Your task to perform on an android device: turn vacation reply on in the gmail app Image 0: 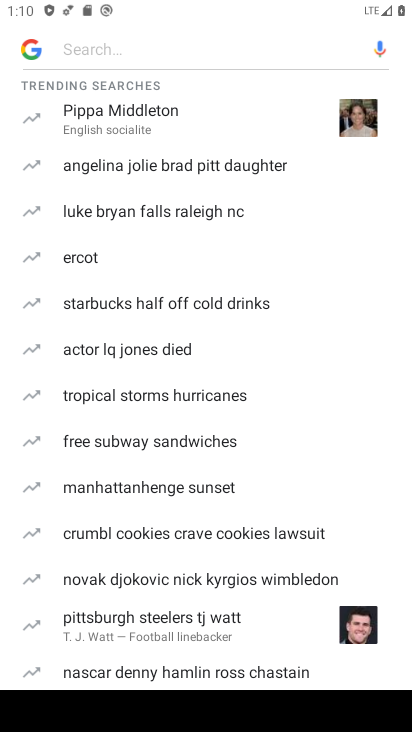
Step 0: press home button
Your task to perform on an android device: turn vacation reply on in the gmail app Image 1: 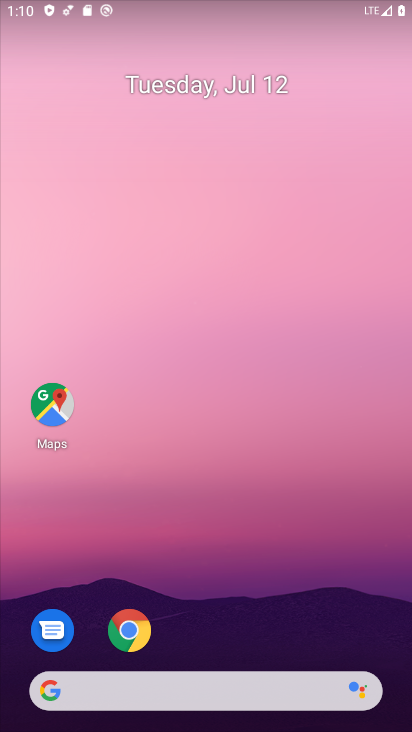
Step 1: drag from (375, 638) to (325, 13)
Your task to perform on an android device: turn vacation reply on in the gmail app Image 2: 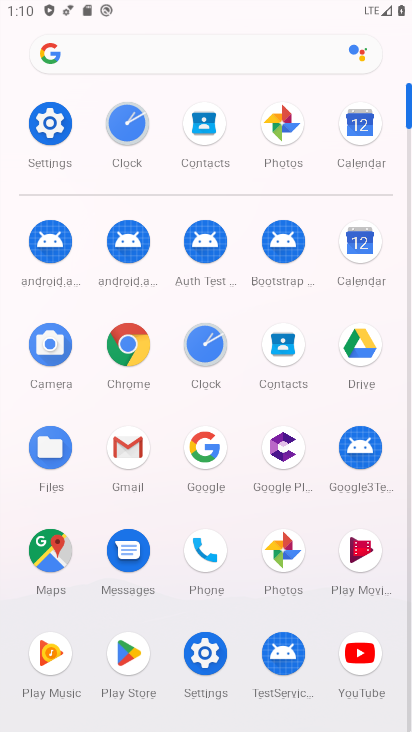
Step 2: click (125, 448)
Your task to perform on an android device: turn vacation reply on in the gmail app Image 3: 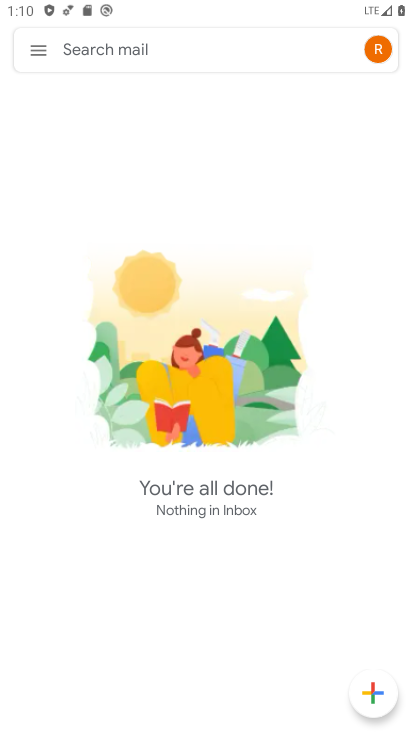
Step 3: click (38, 54)
Your task to perform on an android device: turn vacation reply on in the gmail app Image 4: 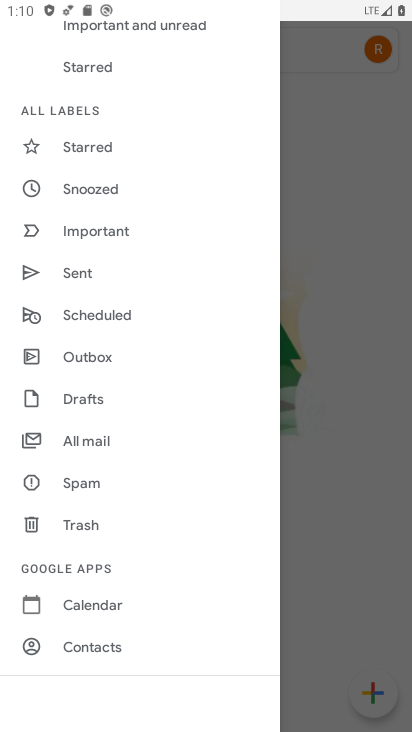
Step 4: drag from (175, 640) to (182, 124)
Your task to perform on an android device: turn vacation reply on in the gmail app Image 5: 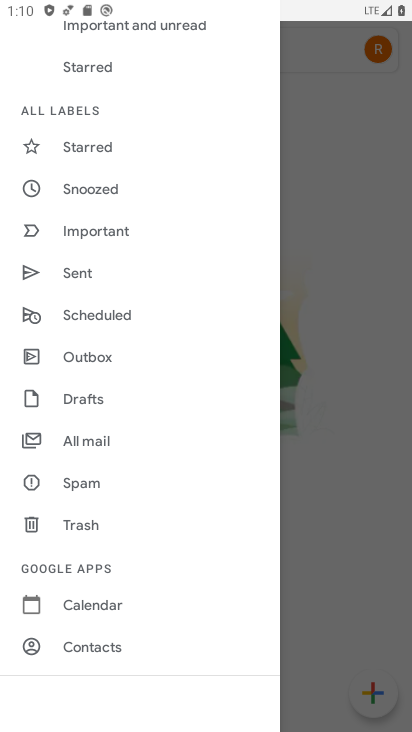
Step 5: drag from (173, 658) to (175, 98)
Your task to perform on an android device: turn vacation reply on in the gmail app Image 6: 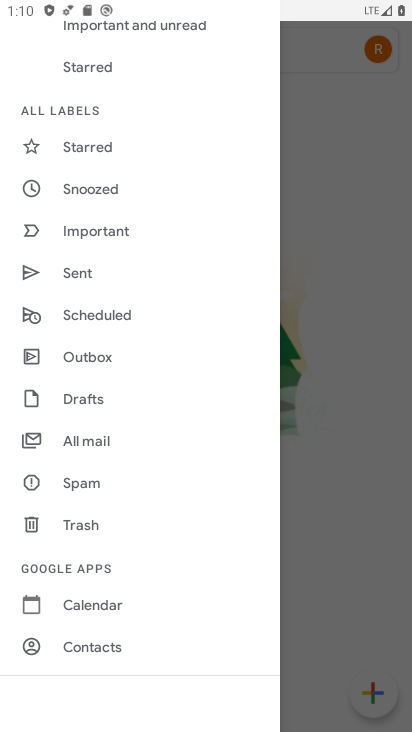
Step 6: drag from (145, 619) to (214, 163)
Your task to perform on an android device: turn vacation reply on in the gmail app Image 7: 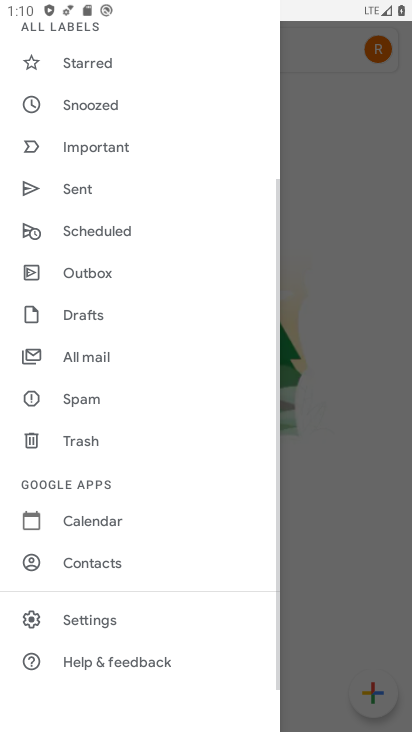
Step 7: click (83, 627)
Your task to perform on an android device: turn vacation reply on in the gmail app Image 8: 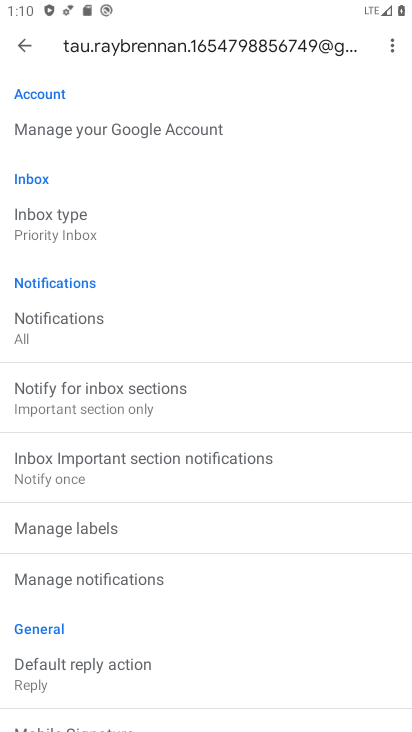
Step 8: drag from (200, 660) to (225, 87)
Your task to perform on an android device: turn vacation reply on in the gmail app Image 9: 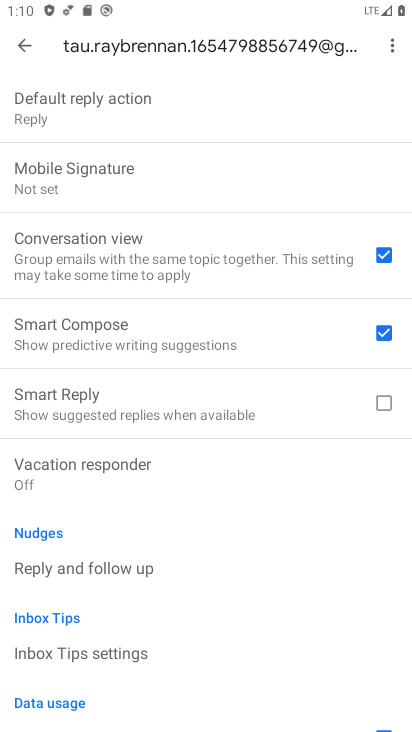
Step 9: click (75, 469)
Your task to perform on an android device: turn vacation reply on in the gmail app Image 10: 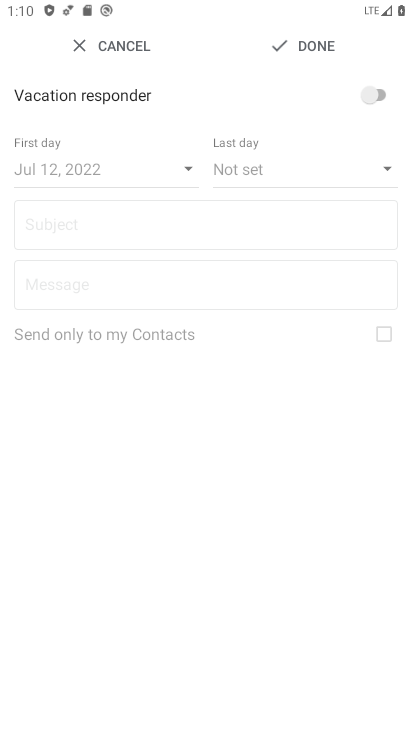
Step 10: click (381, 96)
Your task to perform on an android device: turn vacation reply on in the gmail app Image 11: 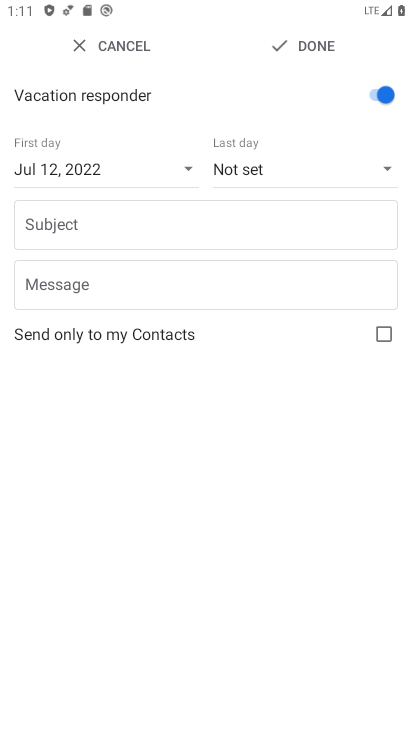
Step 11: click (312, 43)
Your task to perform on an android device: turn vacation reply on in the gmail app Image 12: 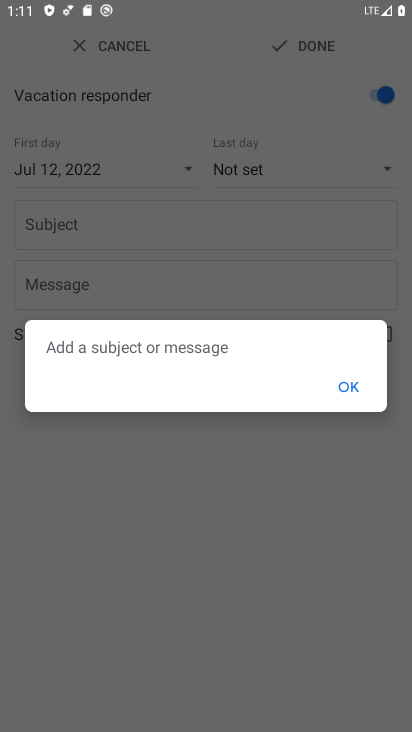
Step 12: click (348, 382)
Your task to perform on an android device: turn vacation reply on in the gmail app Image 13: 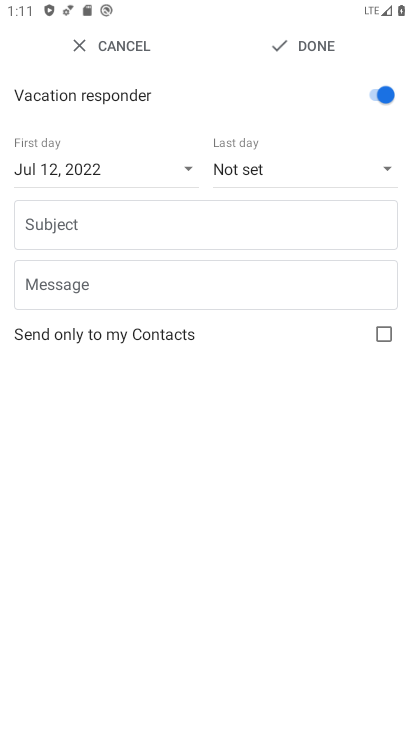
Step 13: task complete